Your task to perform on an android device: Go to ESPN.com Image 0: 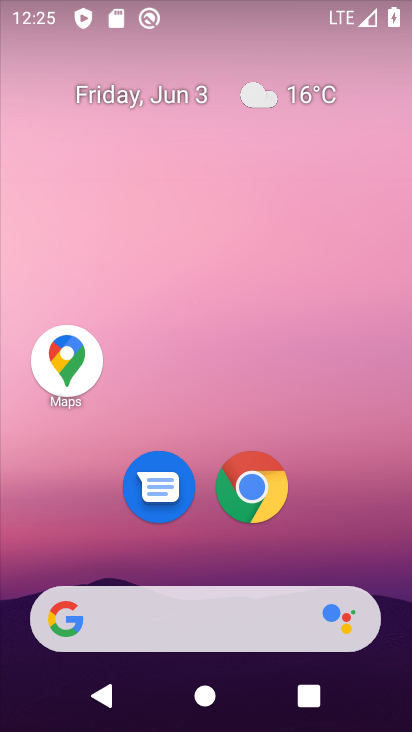
Step 0: click (205, 620)
Your task to perform on an android device: Go to ESPN.com Image 1: 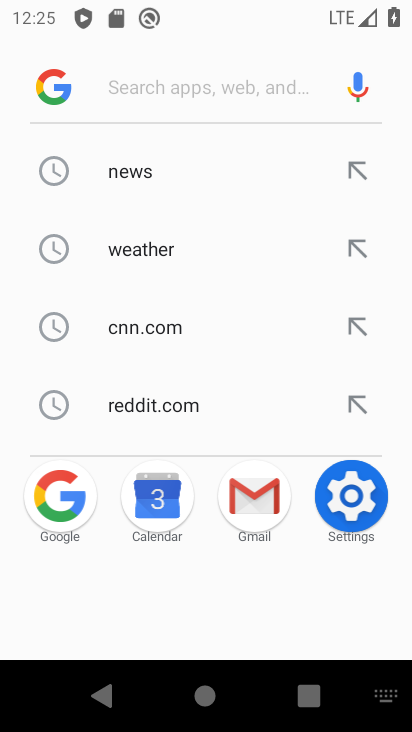
Step 1: type "ESPN.com"
Your task to perform on an android device: Go to ESPN.com Image 2: 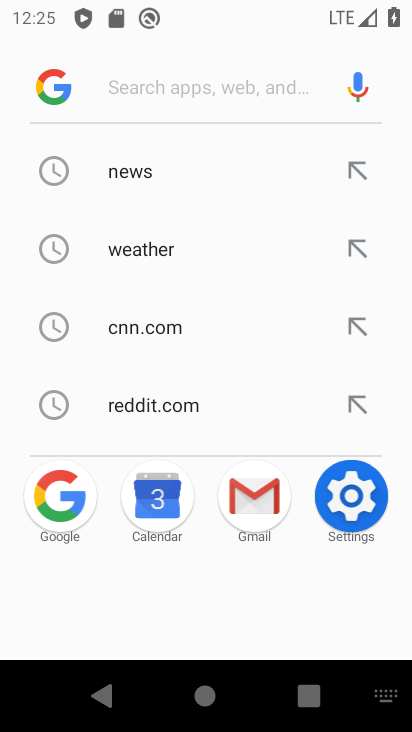
Step 2: click (162, 79)
Your task to perform on an android device: Go to ESPN.com Image 3: 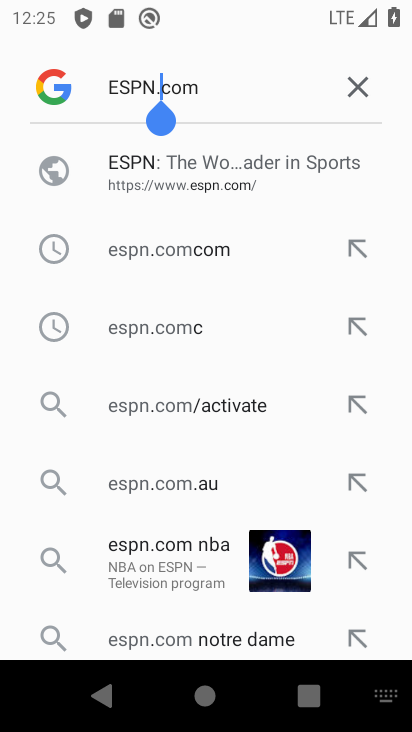
Step 3: click (143, 156)
Your task to perform on an android device: Go to ESPN.com Image 4: 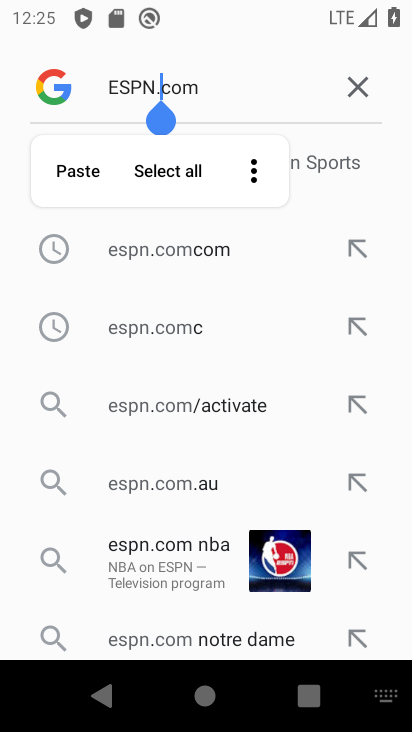
Step 4: click (319, 161)
Your task to perform on an android device: Go to ESPN.com Image 5: 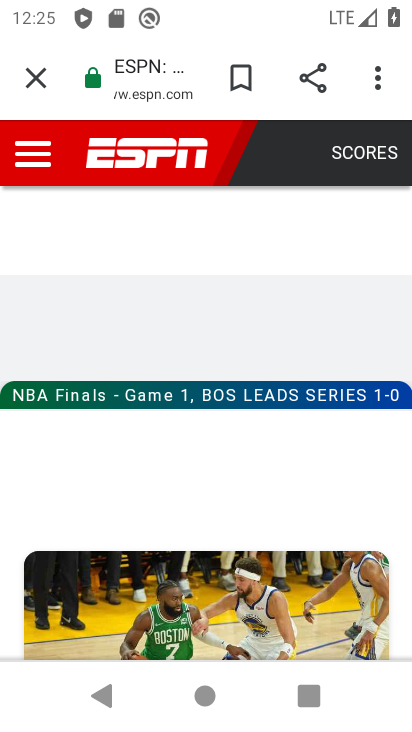
Step 5: task complete